Your task to perform on an android device: Open Google Chrome and click the shortcut for Amazon.com Image 0: 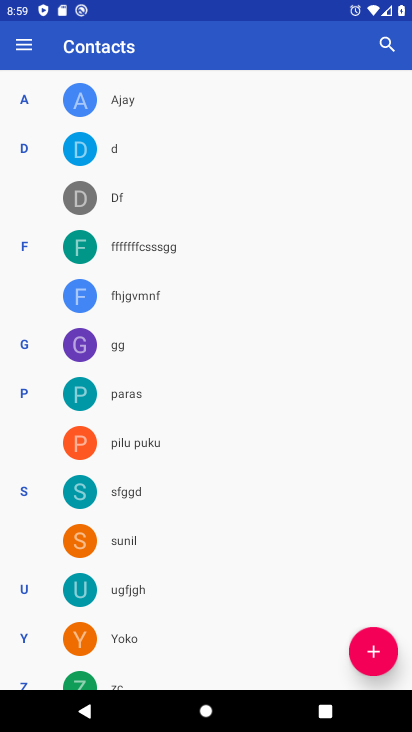
Step 0: press home button
Your task to perform on an android device: Open Google Chrome and click the shortcut for Amazon.com Image 1: 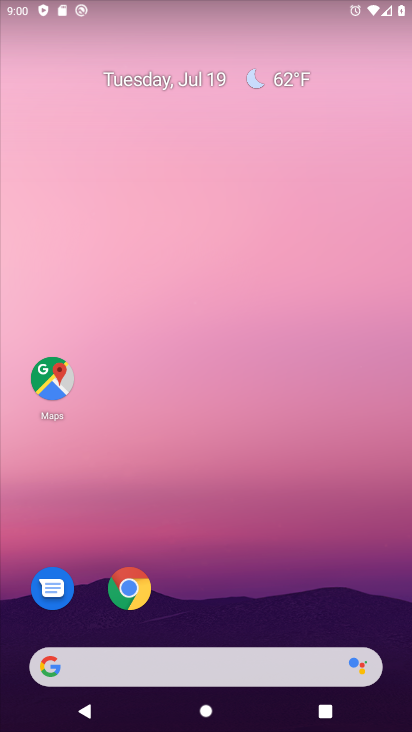
Step 1: drag from (297, 569) to (4, 167)
Your task to perform on an android device: Open Google Chrome and click the shortcut for Amazon.com Image 2: 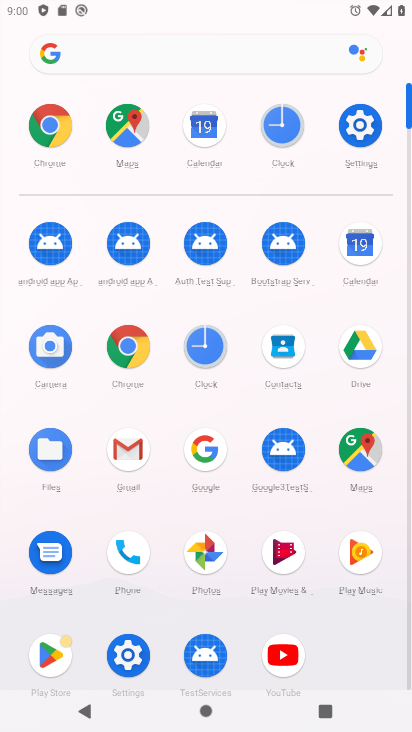
Step 2: click (44, 138)
Your task to perform on an android device: Open Google Chrome and click the shortcut for Amazon.com Image 3: 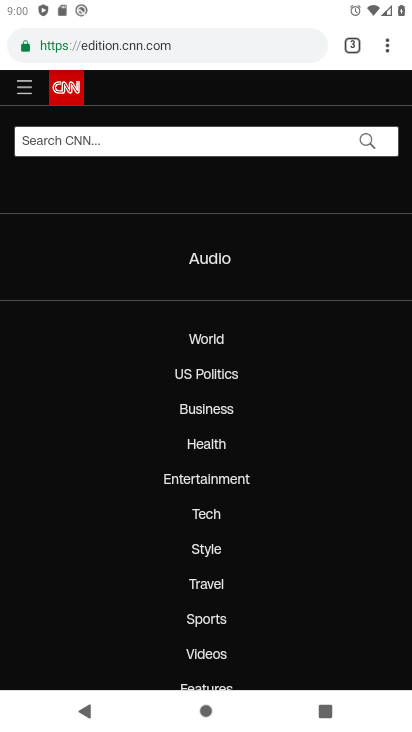
Step 3: press back button
Your task to perform on an android device: Open Google Chrome and click the shortcut for Amazon.com Image 4: 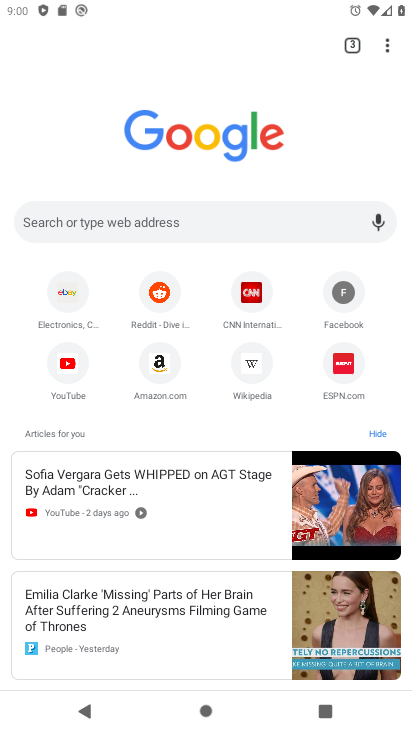
Step 4: click (147, 373)
Your task to perform on an android device: Open Google Chrome and click the shortcut for Amazon.com Image 5: 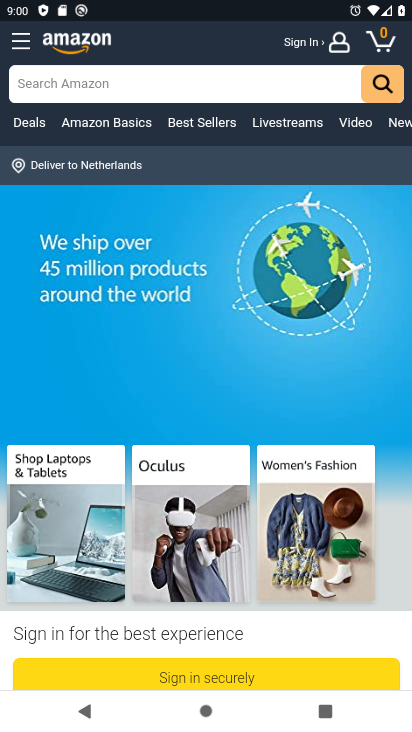
Step 5: drag from (268, 343) to (294, 524)
Your task to perform on an android device: Open Google Chrome and click the shortcut for Amazon.com Image 6: 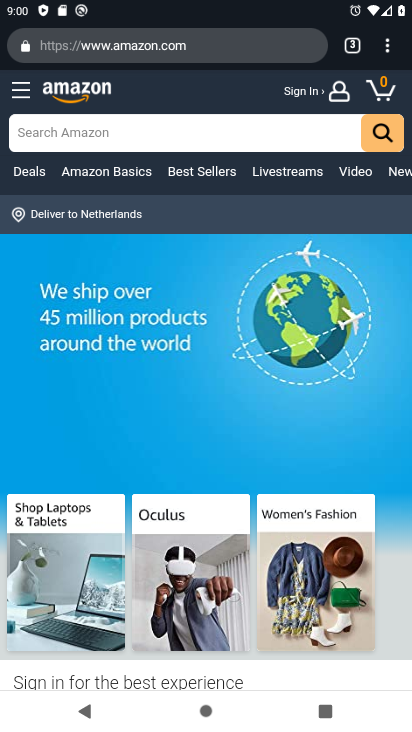
Step 6: drag from (391, 53) to (303, 467)
Your task to perform on an android device: Open Google Chrome and click the shortcut for Amazon.com Image 7: 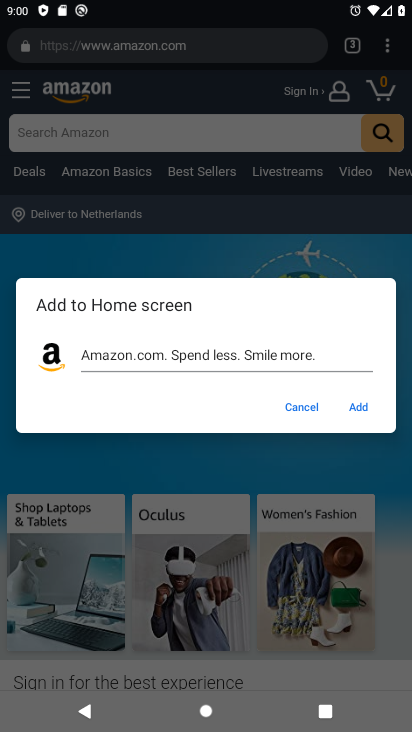
Step 7: click (358, 407)
Your task to perform on an android device: Open Google Chrome and click the shortcut for Amazon.com Image 8: 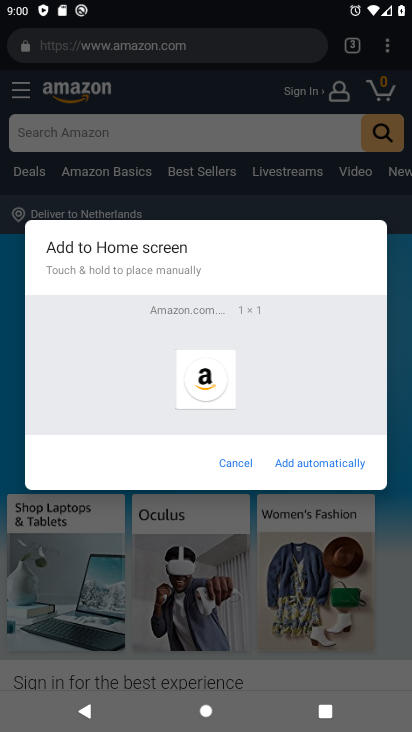
Step 8: click (308, 466)
Your task to perform on an android device: Open Google Chrome and click the shortcut for Amazon.com Image 9: 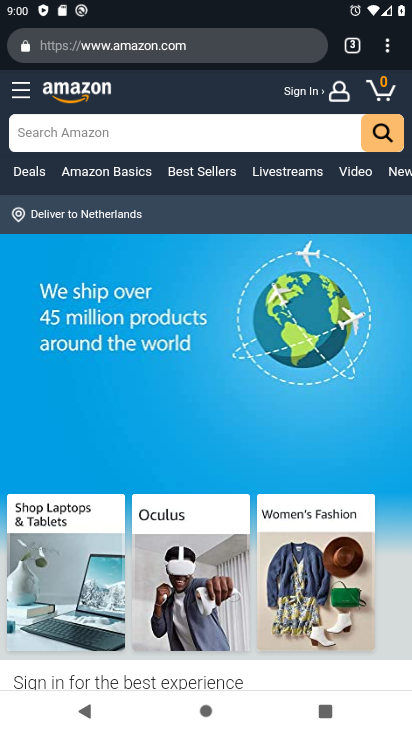
Step 9: task complete